Your task to perform on an android device: allow cookies in the chrome app Image 0: 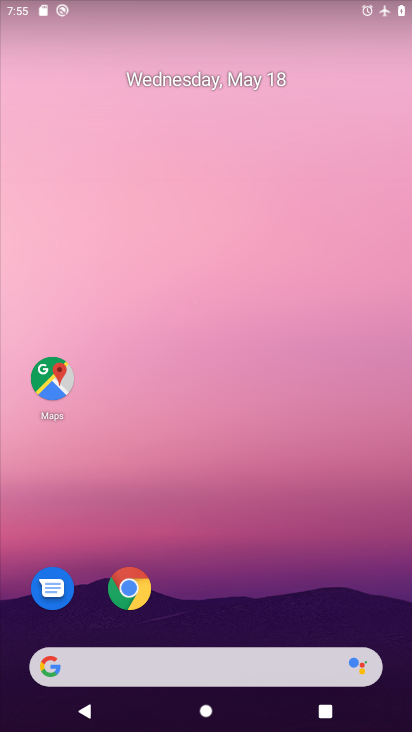
Step 0: drag from (228, 602) to (296, 144)
Your task to perform on an android device: allow cookies in the chrome app Image 1: 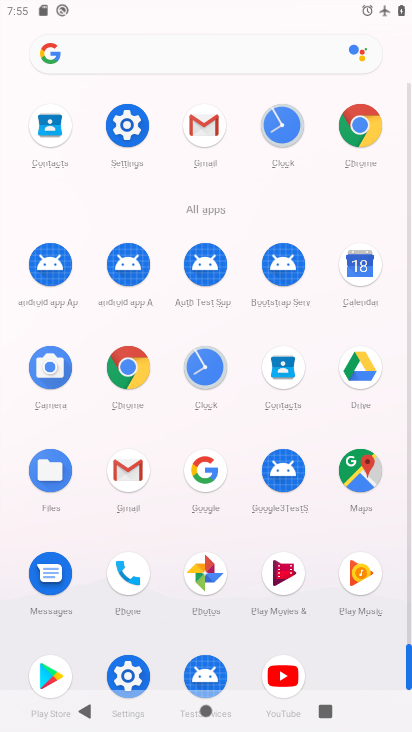
Step 1: click (133, 391)
Your task to perform on an android device: allow cookies in the chrome app Image 2: 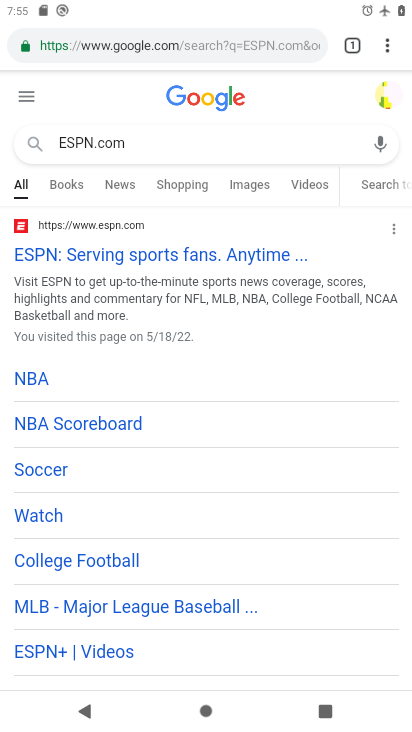
Step 2: click (386, 42)
Your task to perform on an android device: allow cookies in the chrome app Image 3: 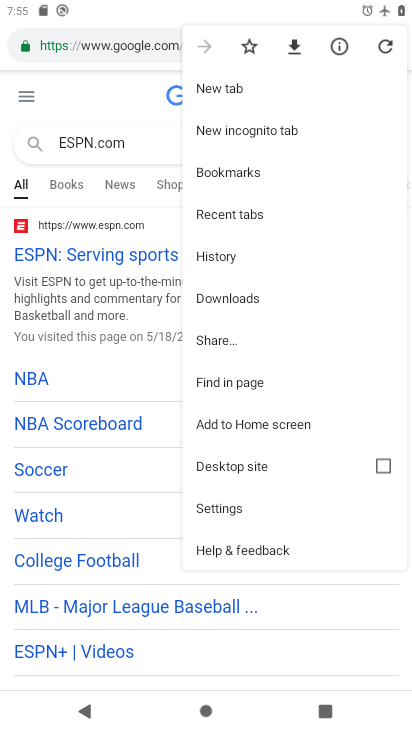
Step 3: click (241, 512)
Your task to perform on an android device: allow cookies in the chrome app Image 4: 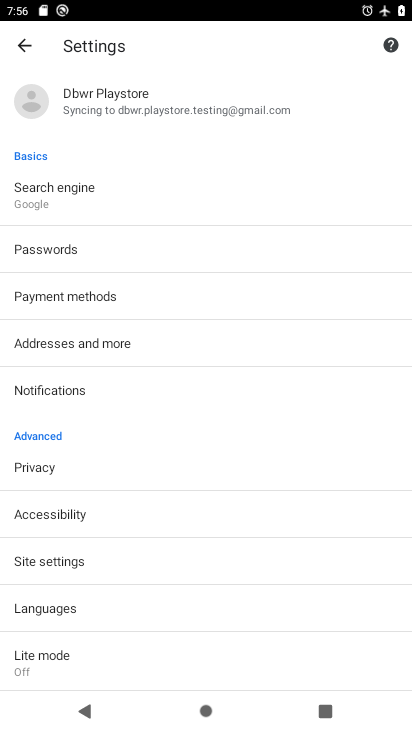
Step 4: click (47, 562)
Your task to perform on an android device: allow cookies in the chrome app Image 5: 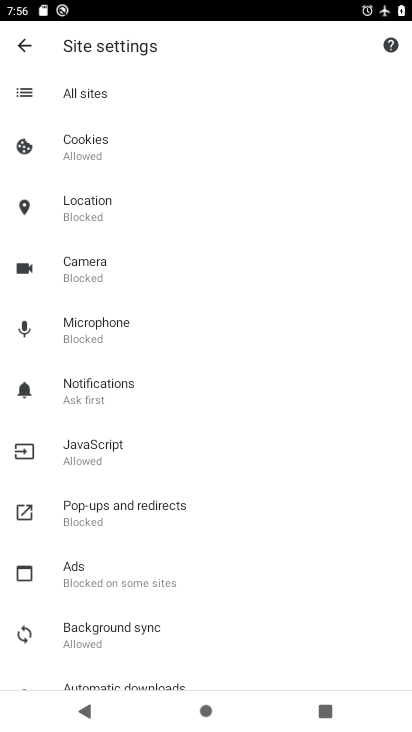
Step 5: click (89, 158)
Your task to perform on an android device: allow cookies in the chrome app Image 6: 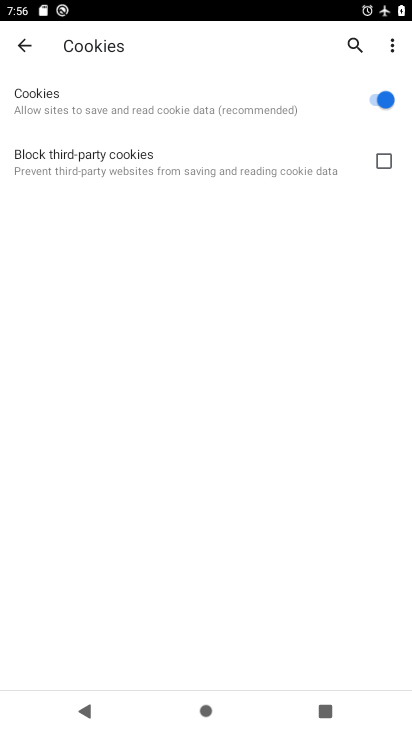
Step 6: task complete